Your task to perform on an android device: Open Google Chrome and click the shortcut for Amazon.com Image 0: 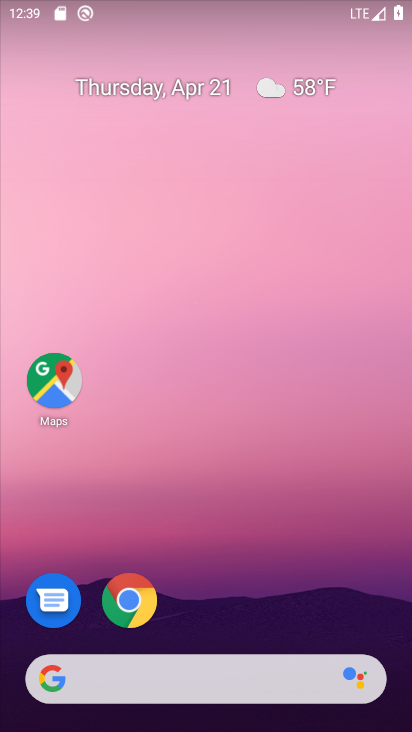
Step 0: click (128, 599)
Your task to perform on an android device: Open Google Chrome and click the shortcut for Amazon.com Image 1: 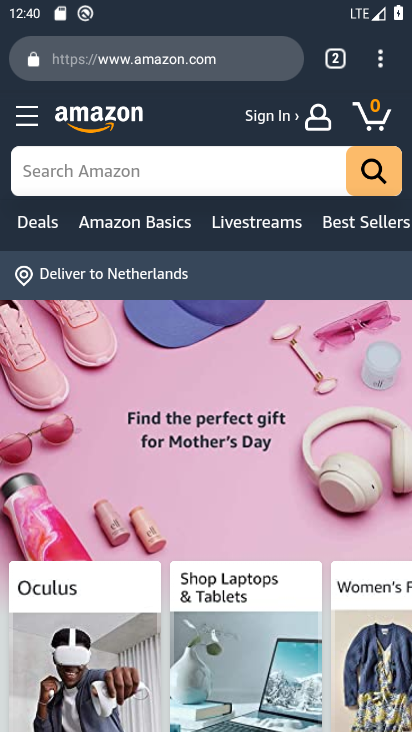
Step 1: press back button
Your task to perform on an android device: Open Google Chrome and click the shortcut for Amazon.com Image 2: 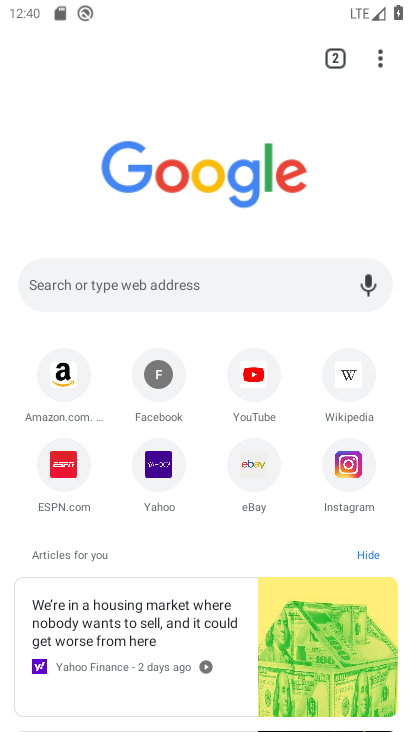
Step 2: click (65, 371)
Your task to perform on an android device: Open Google Chrome and click the shortcut for Amazon.com Image 3: 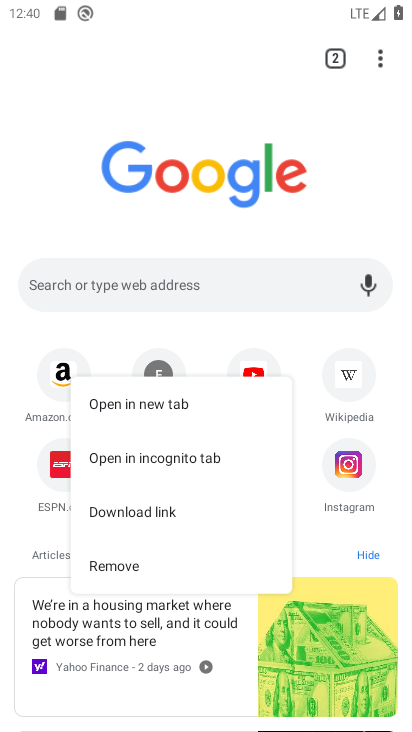
Step 3: click (65, 371)
Your task to perform on an android device: Open Google Chrome and click the shortcut for Amazon.com Image 4: 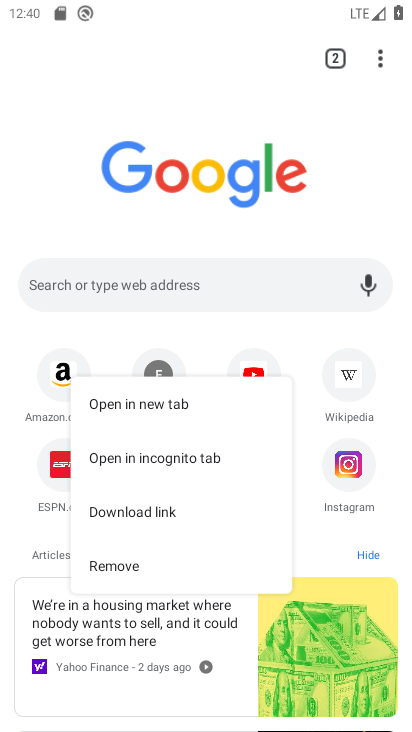
Step 4: click (62, 362)
Your task to perform on an android device: Open Google Chrome and click the shortcut for Amazon.com Image 5: 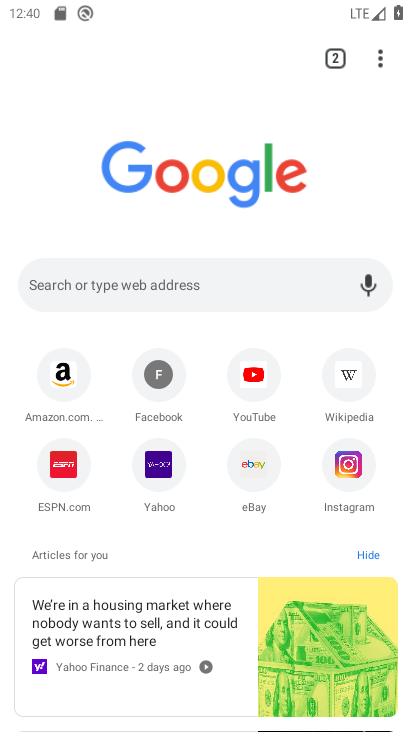
Step 5: click (62, 362)
Your task to perform on an android device: Open Google Chrome and click the shortcut for Amazon.com Image 6: 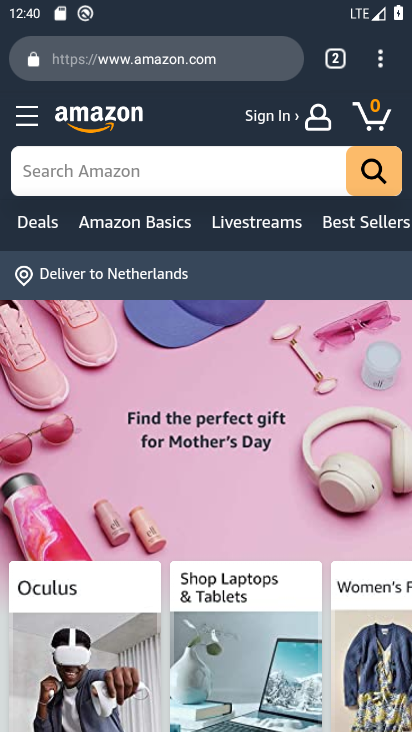
Step 6: task complete